Your task to perform on an android device: When is my next appointment? Image 0: 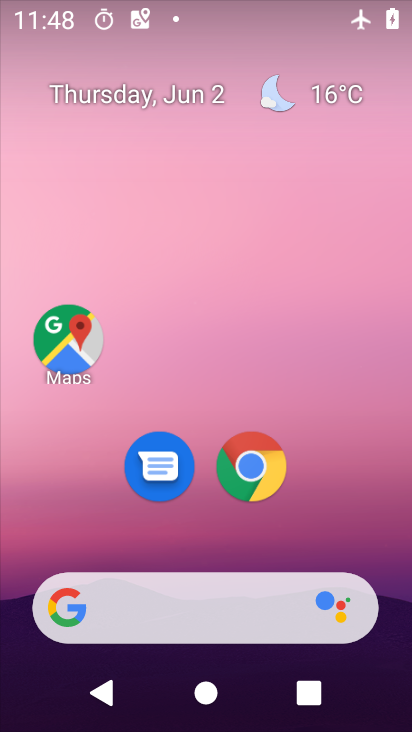
Step 0: drag from (207, 547) to (263, 107)
Your task to perform on an android device: When is my next appointment? Image 1: 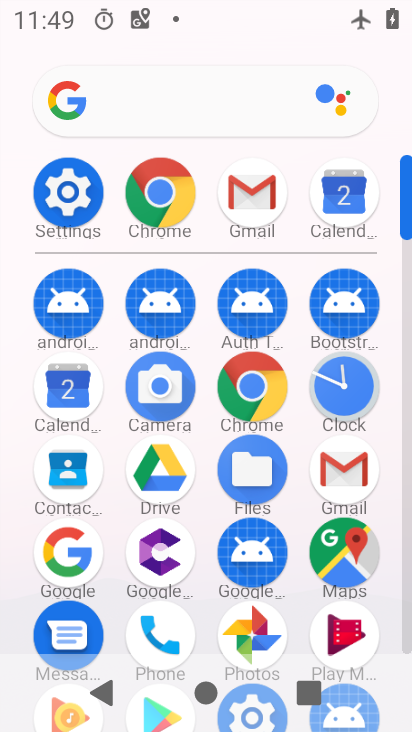
Step 1: click (66, 418)
Your task to perform on an android device: When is my next appointment? Image 2: 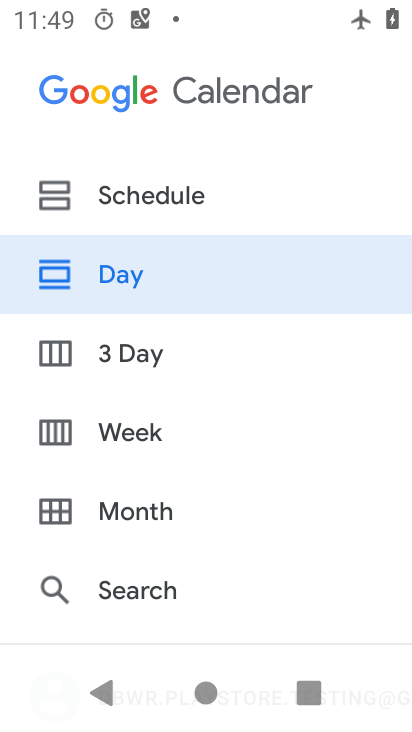
Step 2: click (258, 204)
Your task to perform on an android device: When is my next appointment? Image 3: 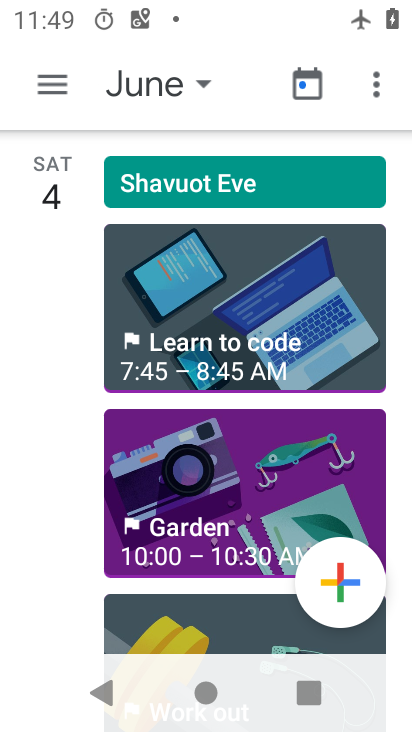
Step 3: task complete